Your task to perform on an android device: Play the last video I watched on Youtube Image 0: 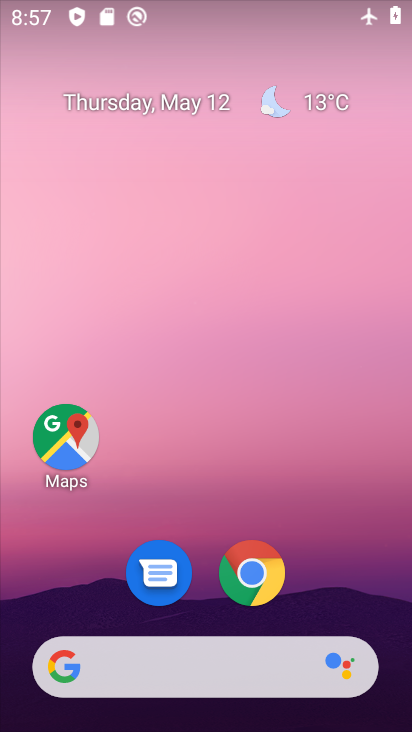
Step 0: drag from (394, 682) to (369, 246)
Your task to perform on an android device: Play the last video I watched on Youtube Image 1: 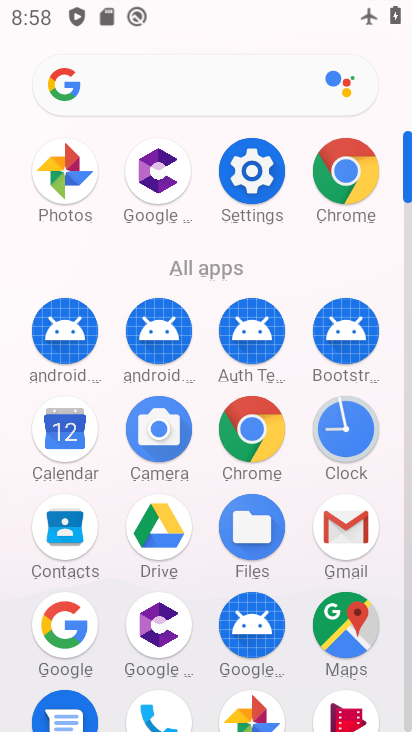
Step 1: click (396, 75)
Your task to perform on an android device: Play the last video I watched on Youtube Image 2: 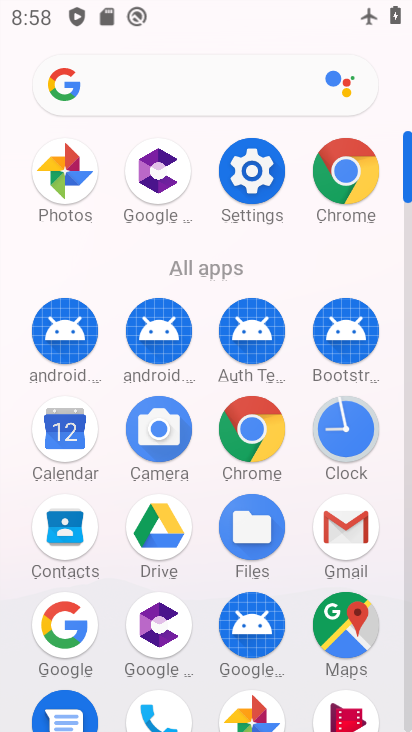
Step 2: drag from (410, 103) to (408, 32)
Your task to perform on an android device: Play the last video I watched on Youtube Image 3: 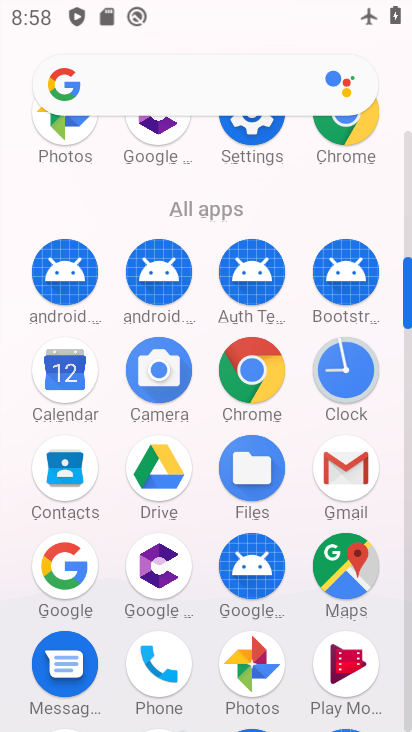
Step 3: drag from (410, 265) to (406, 207)
Your task to perform on an android device: Play the last video I watched on Youtube Image 4: 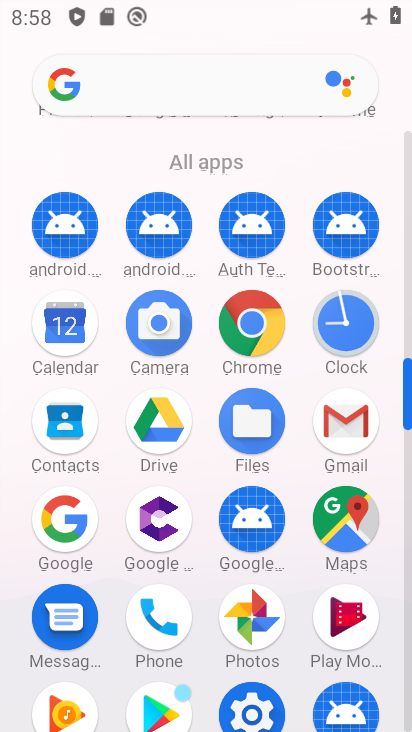
Step 4: drag from (406, 369) to (411, 544)
Your task to perform on an android device: Play the last video I watched on Youtube Image 5: 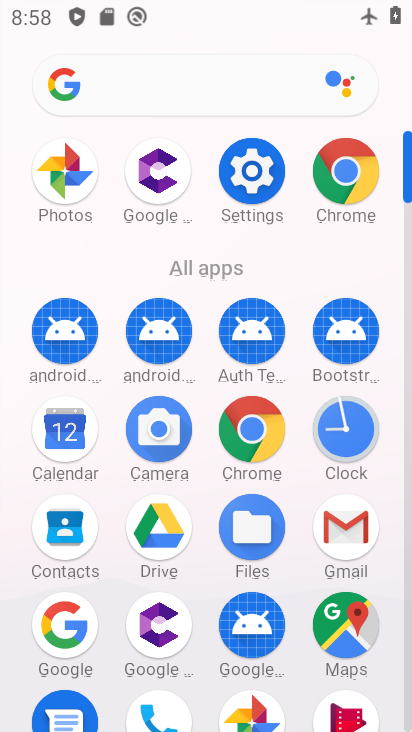
Step 5: drag from (408, 141) to (406, 79)
Your task to perform on an android device: Play the last video I watched on Youtube Image 6: 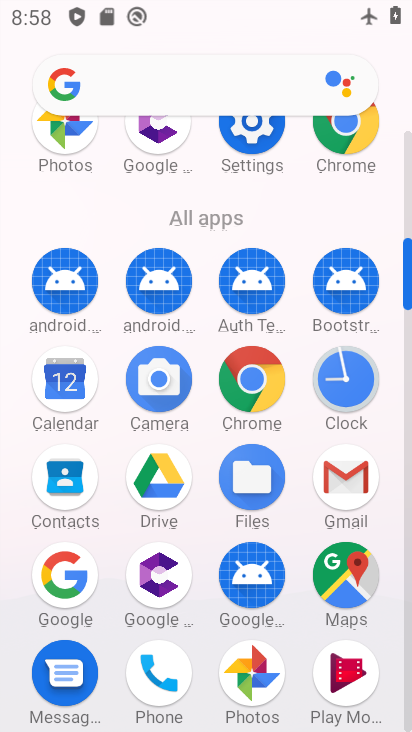
Step 6: click (409, 251)
Your task to perform on an android device: Play the last video I watched on Youtube Image 7: 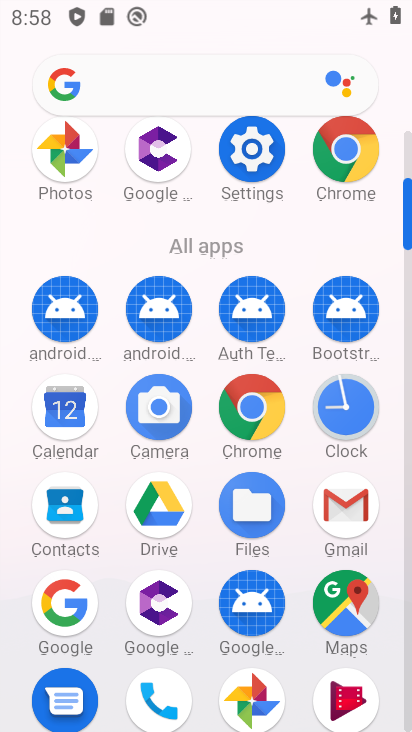
Step 7: drag from (408, 280) to (409, 196)
Your task to perform on an android device: Play the last video I watched on Youtube Image 8: 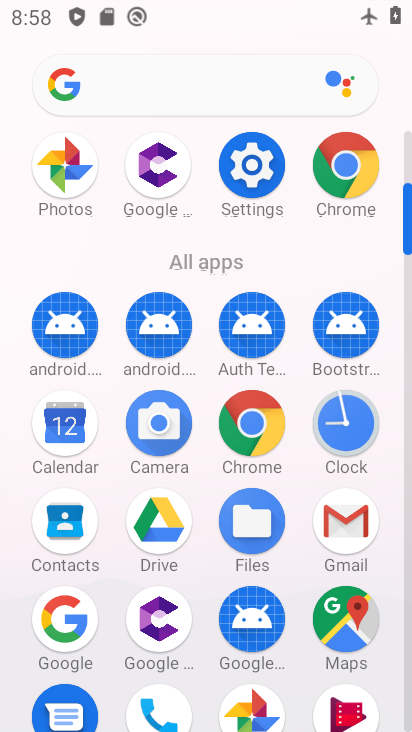
Step 8: drag from (406, 204) to (411, 103)
Your task to perform on an android device: Play the last video I watched on Youtube Image 9: 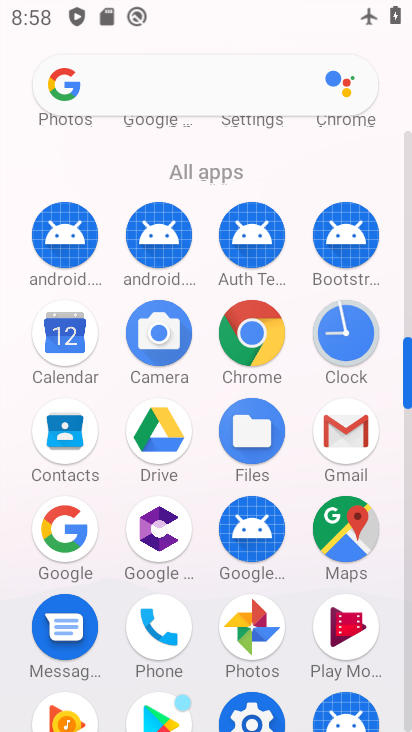
Step 9: drag from (409, 336) to (411, 258)
Your task to perform on an android device: Play the last video I watched on Youtube Image 10: 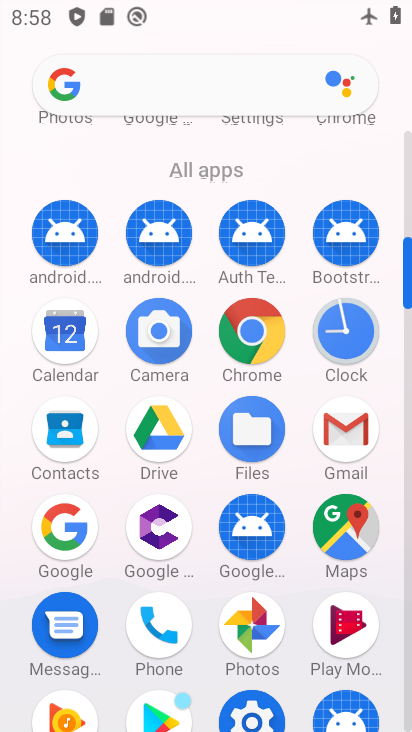
Step 10: drag from (408, 247) to (411, 188)
Your task to perform on an android device: Play the last video I watched on Youtube Image 11: 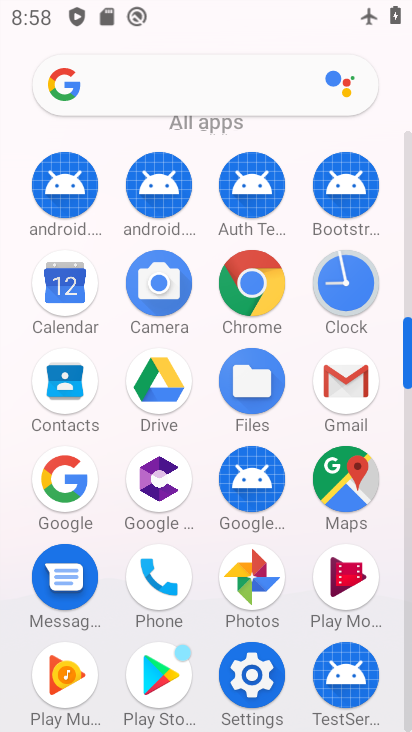
Step 11: drag from (412, 325) to (410, 439)
Your task to perform on an android device: Play the last video I watched on Youtube Image 12: 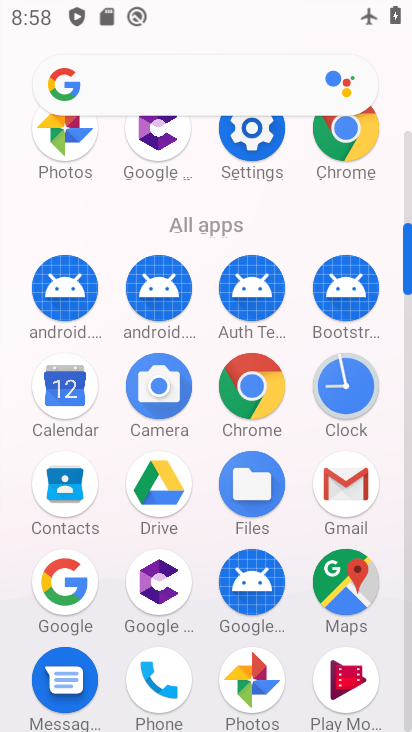
Step 12: drag from (407, 234) to (412, 142)
Your task to perform on an android device: Play the last video I watched on Youtube Image 13: 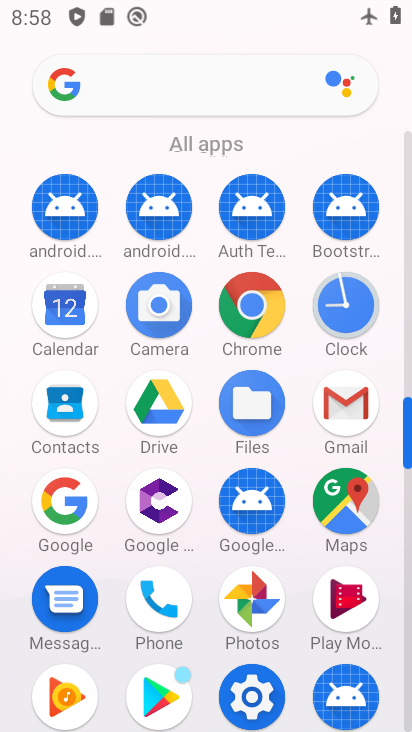
Step 13: click (405, 412)
Your task to perform on an android device: Play the last video I watched on Youtube Image 14: 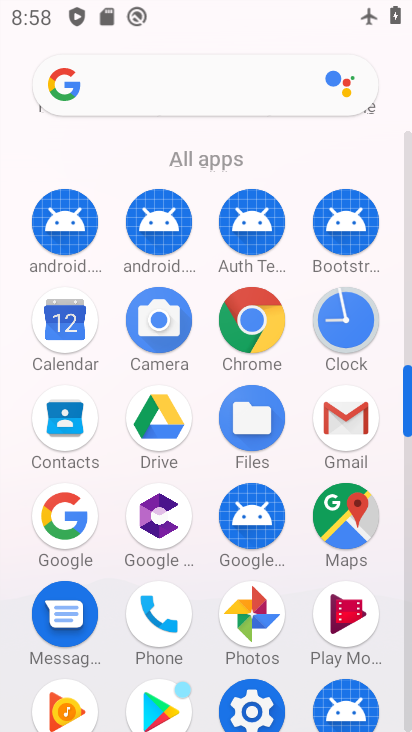
Step 14: drag from (407, 371) to (409, 260)
Your task to perform on an android device: Play the last video I watched on Youtube Image 15: 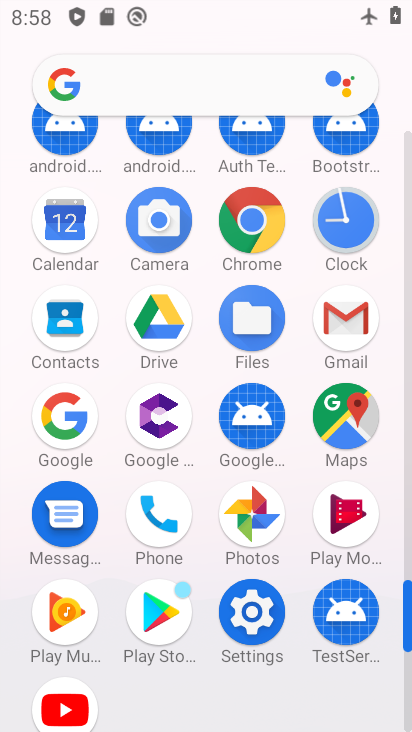
Step 15: click (51, 697)
Your task to perform on an android device: Play the last video I watched on Youtube Image 16: 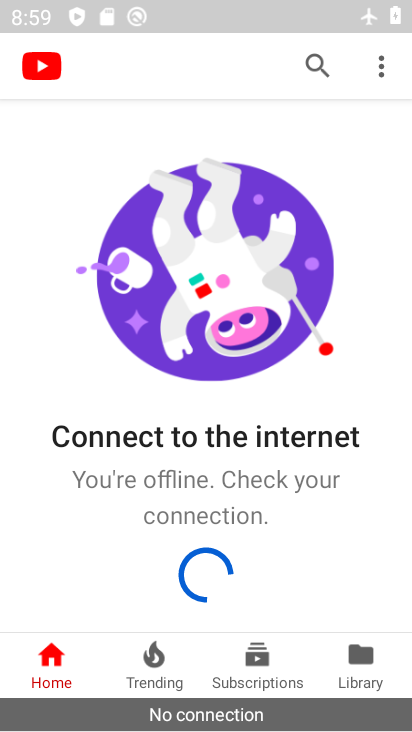
Step 16: task complete